Your task to perform on an android device: Open Google Chrome and open the bookmarks view Image 0: 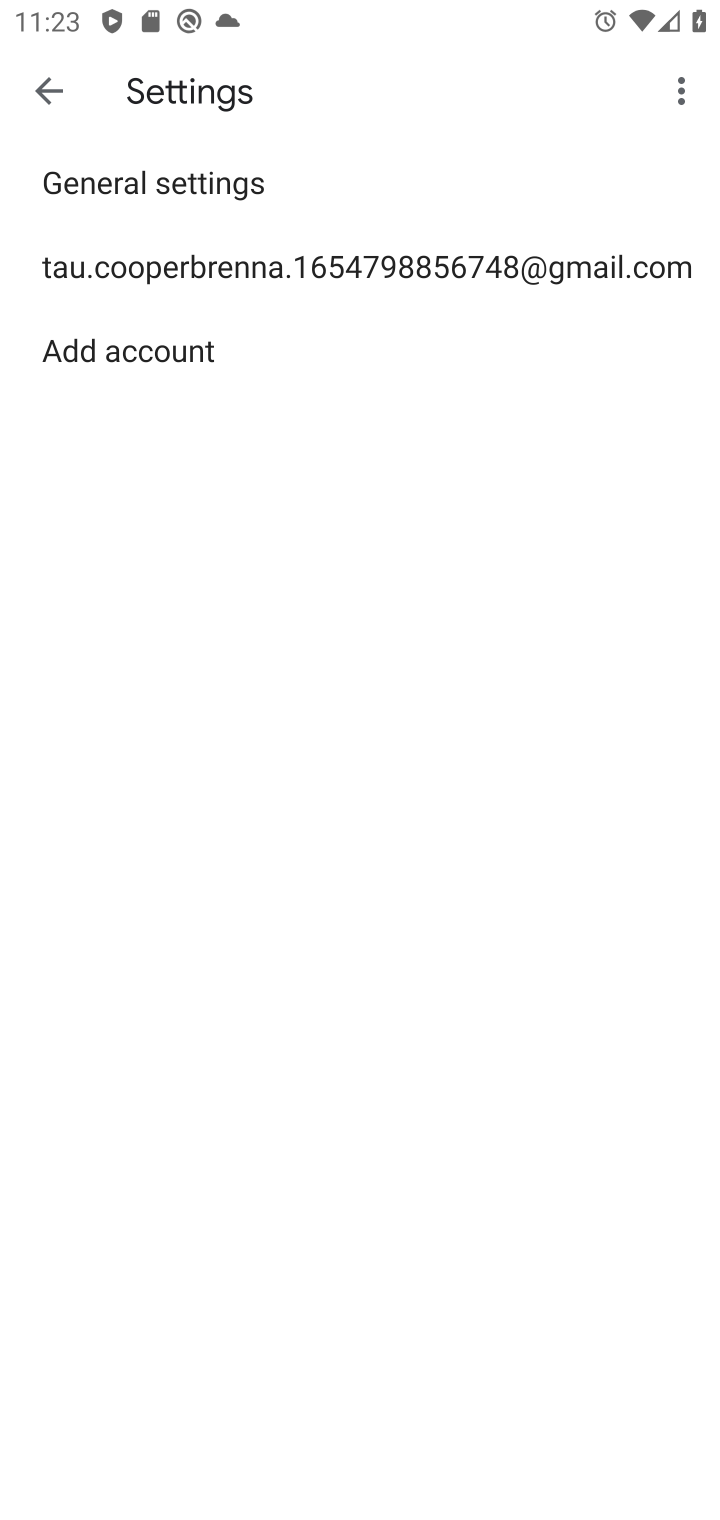
Step 0: press home button
Your task to perform on an android device: Open Google Chrome and open the bookmarks view Image 1: 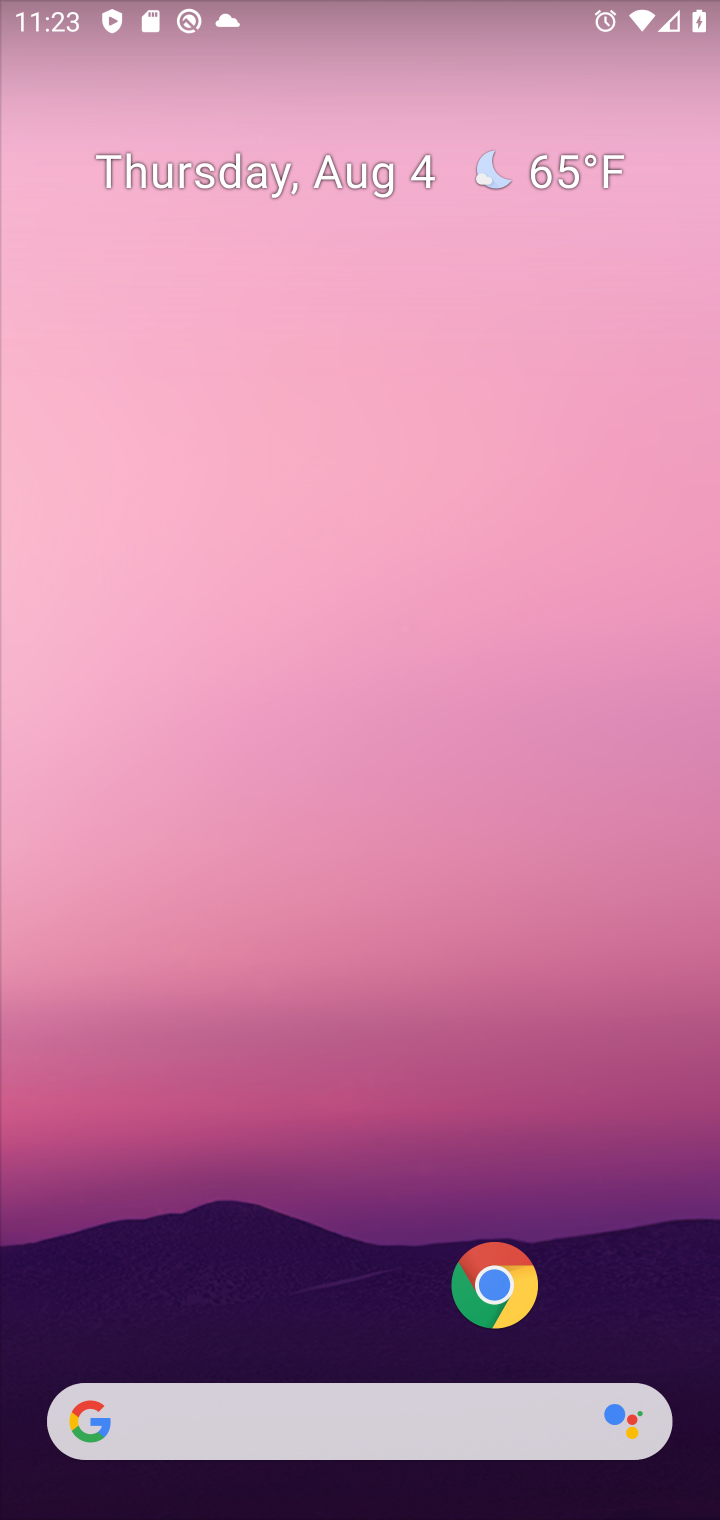
Step 1: click (499, 1319)
Your task to perform on an android device: Open Google Chrome and open the bookmarks view Image 2: 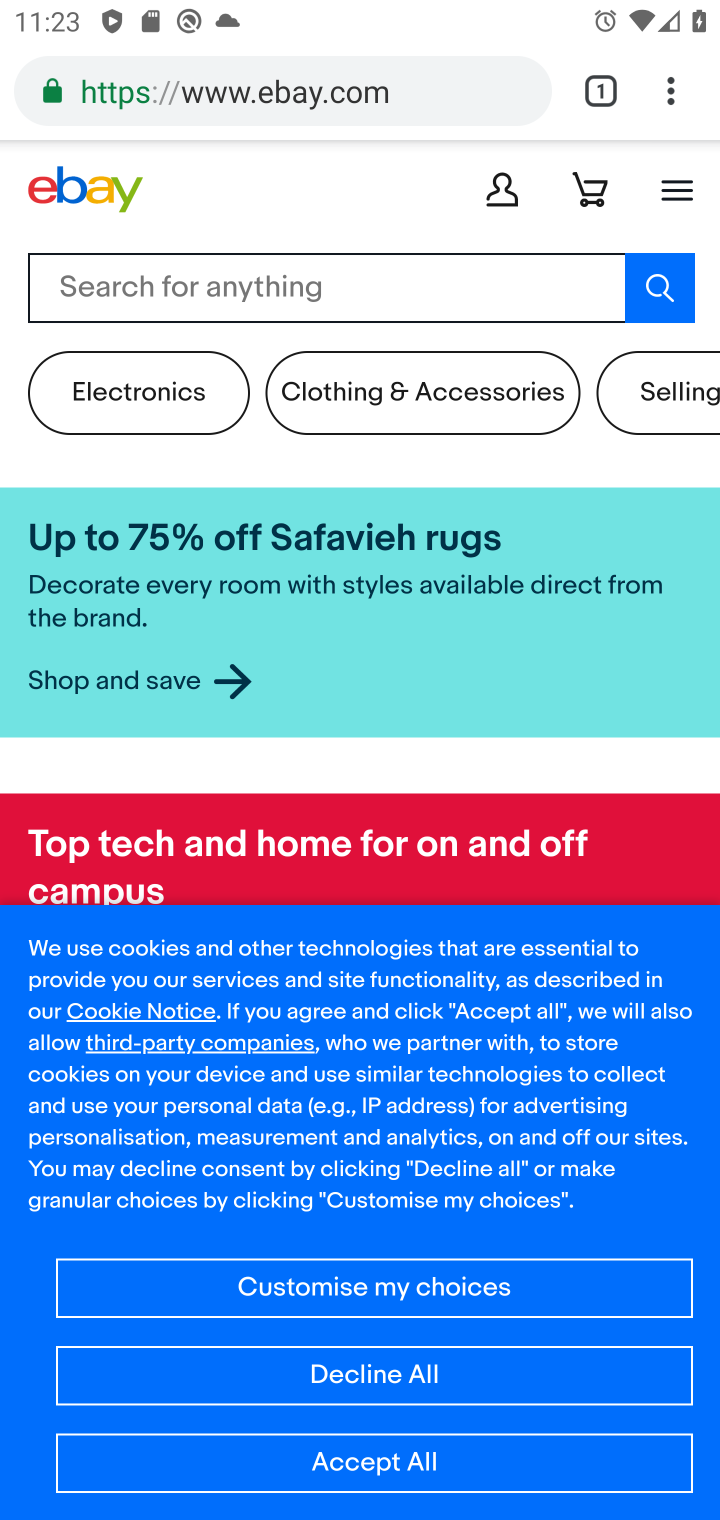
Step 2: task complete